Your task to perform on an android device: change timer sound Image 0: 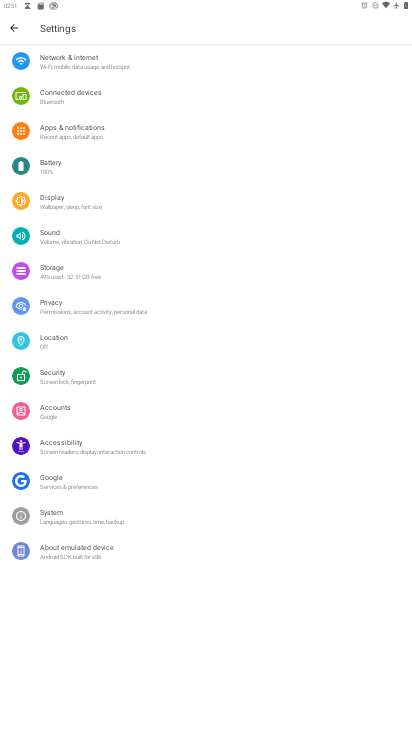
Step 0: click (78, 236)
Your task to perform on an android device: change timer sound Image 1: 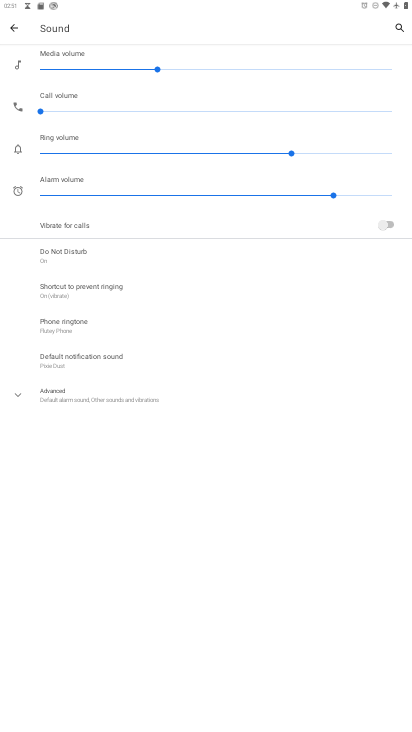
Step 1: press home button
Your task to perform on an android device: change timer sound Image 2: 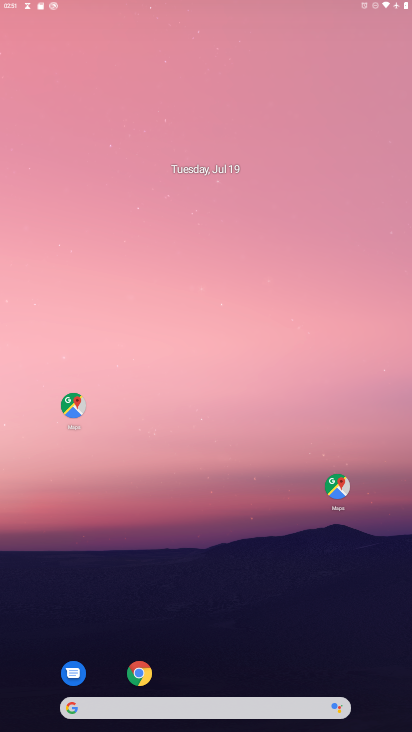
Step 2: drag from (268, 680) to (269, 207)
Your task to perform on an android device: change timer sound Image 3: 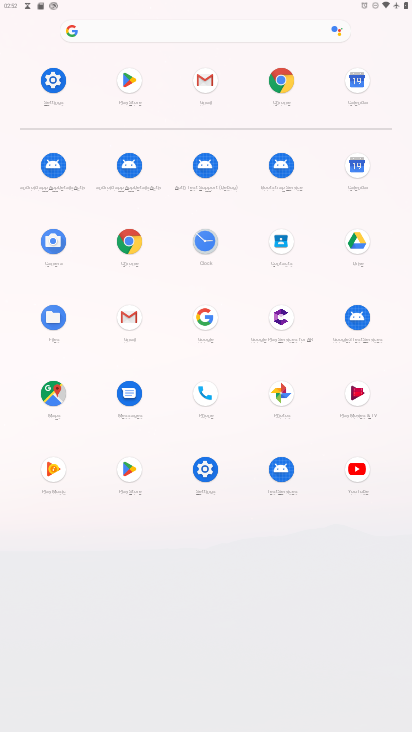
Step 3: click (194, 236)
Your task to perform on an android device: change timer sound Image 4: 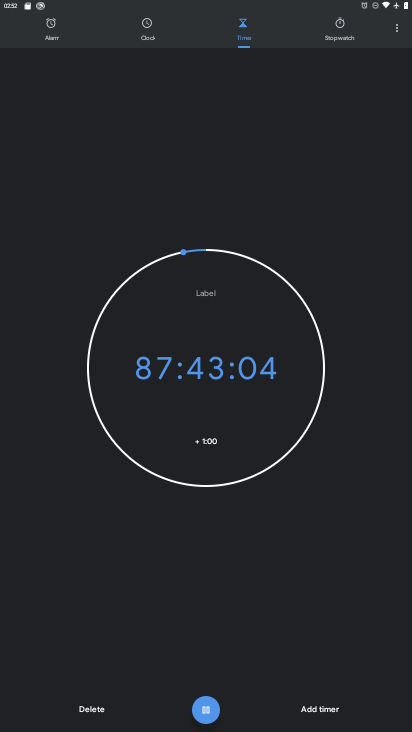
Step 4: click (394, 23)
Your task to perform on an android device: change timer sound Image 5: 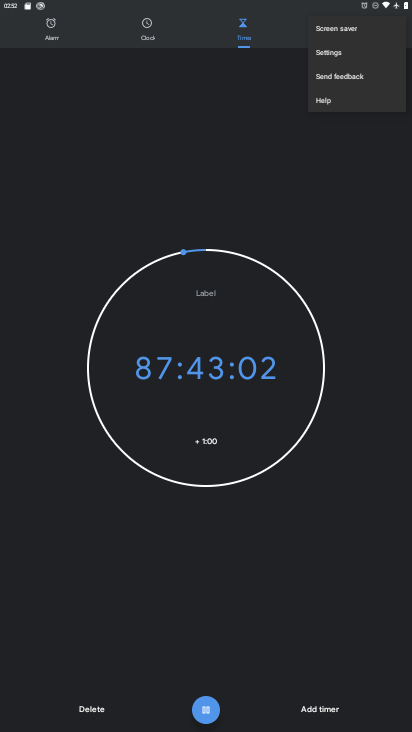
Step 5: click (338, 61)
Your task to perform on an android device: change timer sound Image 6: 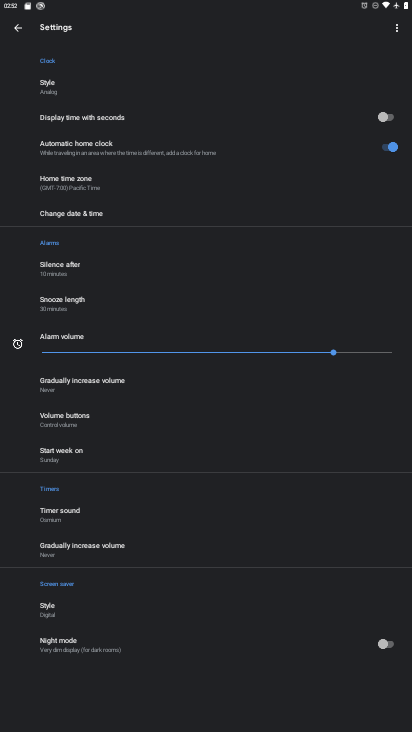
Step 6: click (64, 520)
Your task to perform on an android device: change timer sound Image 7: 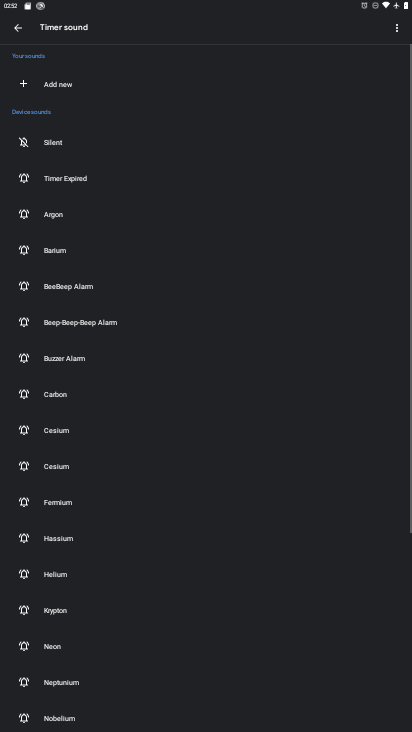
Step 7: click (65, 531)
Your task to perform on an android device: change timer sound Image 8: 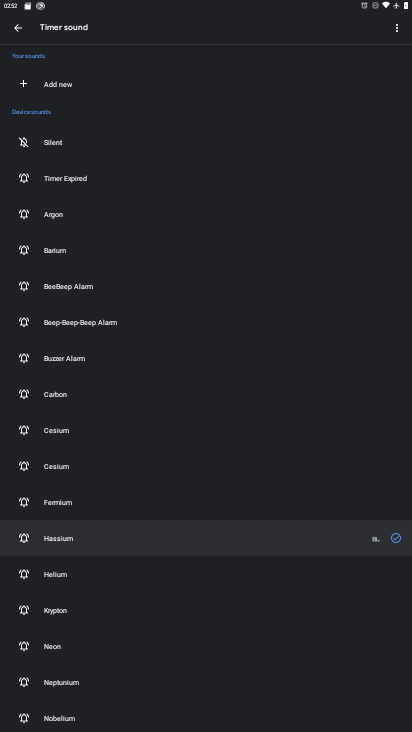
Step 8: task complete